Your task to perform on an android device: Open notification settings Image 0: 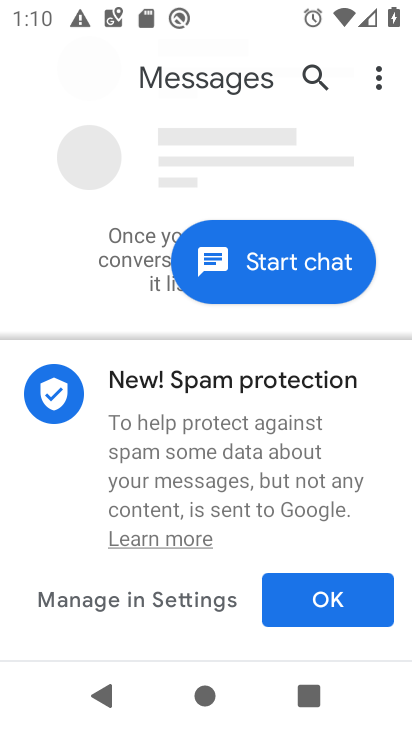
Step 0: press back button
Your task to perform on an android device: Open notification settings Image 1: 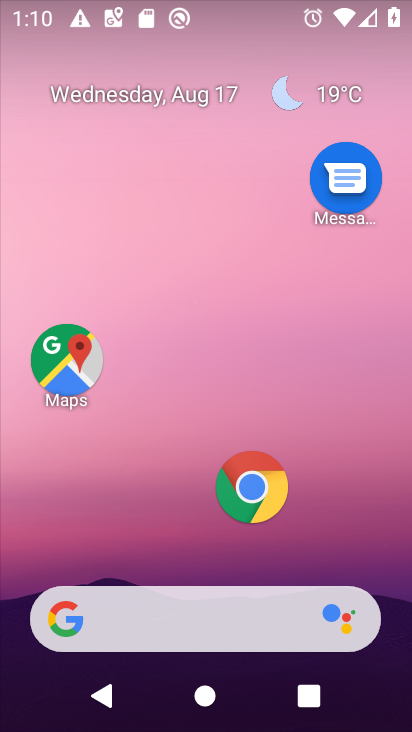
Step 1: drag from (127, 180) to (193, 1)
Your task to perform on an android device: Open notification settings Image 2: 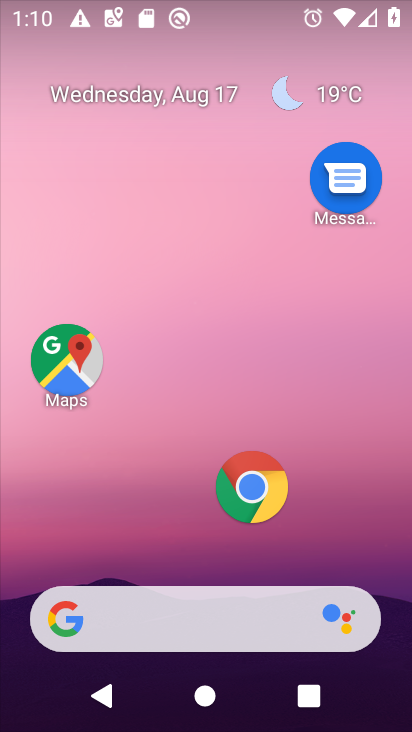
Step 2: drag from (132, 446) to (197, 15)
Your task to perform on an android device: Open notification settings Image 3: 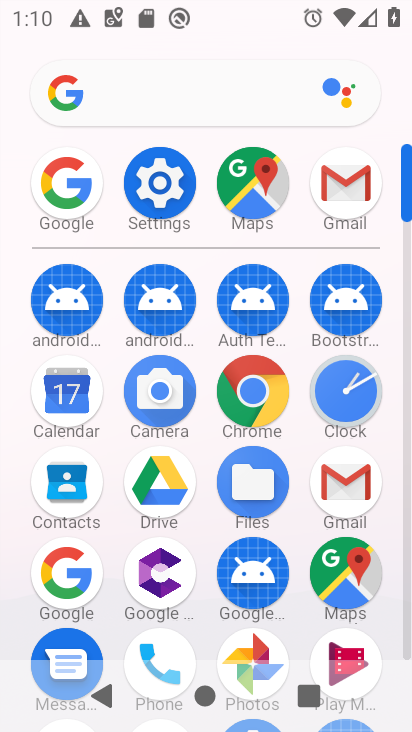
Step 3: click (137, 189)
Your task to perform on an android device: Open notification settings Image 4: 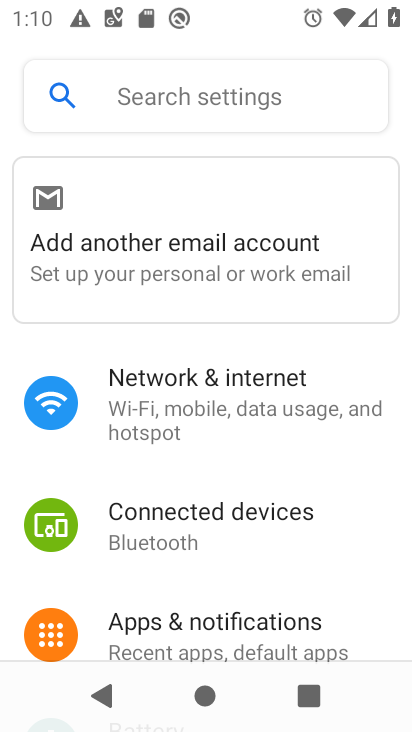
Step 4: click (273, 628)
Your task to perform on an android device: Open notification settings Image 5: 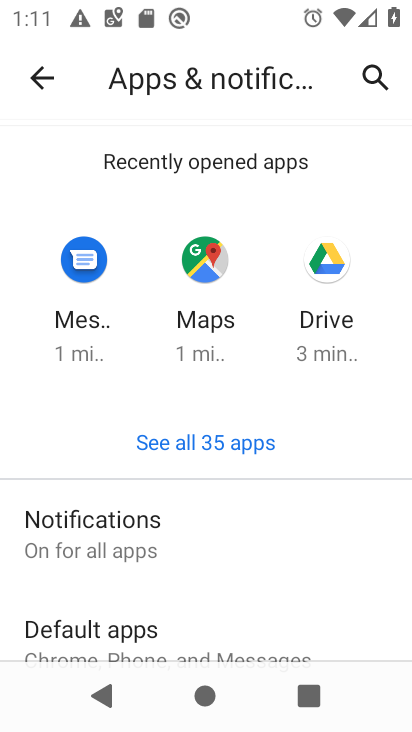
Step 5: click (194, 510)
Your task to perform on an android device: Open notification settings Image 6: 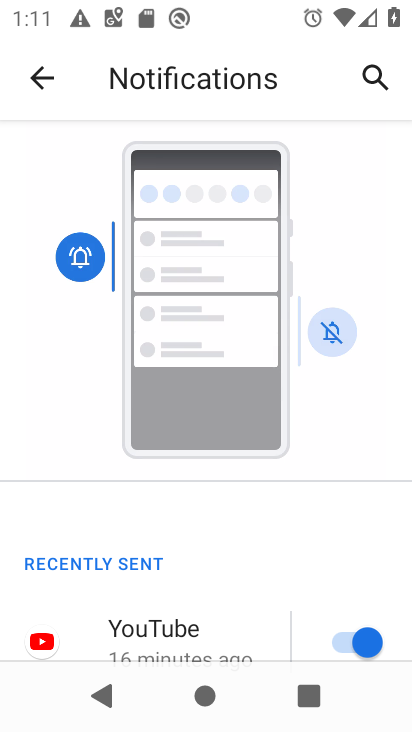
Step 6: task complete